Your task to perform on an android device: toggle notifications settings in the gmail app Image 0: 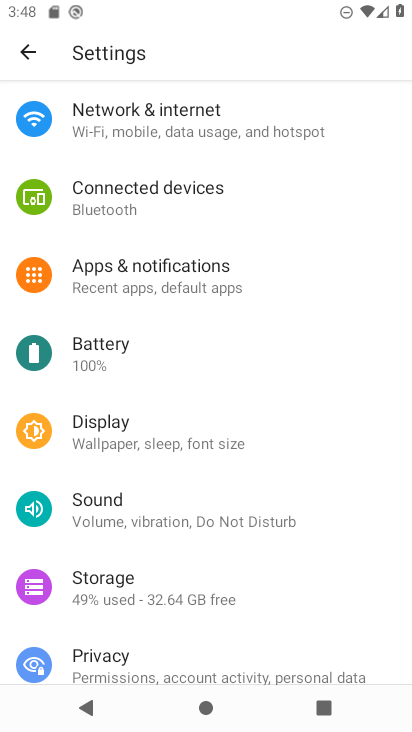
Step 0: press home button
Your task to perform on an android device: toggle notifications settings in the gmail app Image 1: 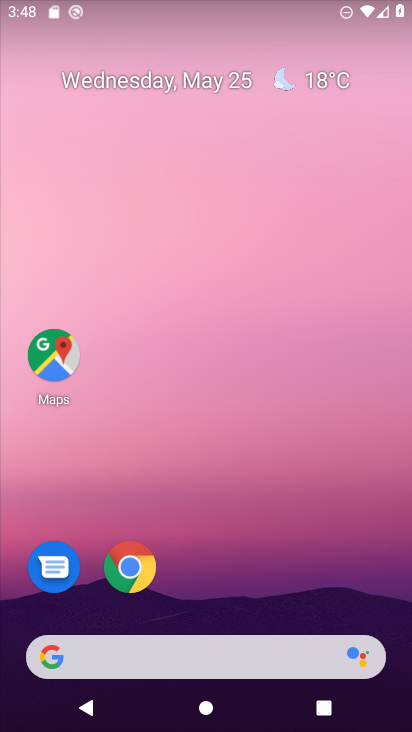
Step 1: drag from (364, 537) to (369, 286)
Your task to perform on an android device: toggle notifications settings in the gmail app Image 2: 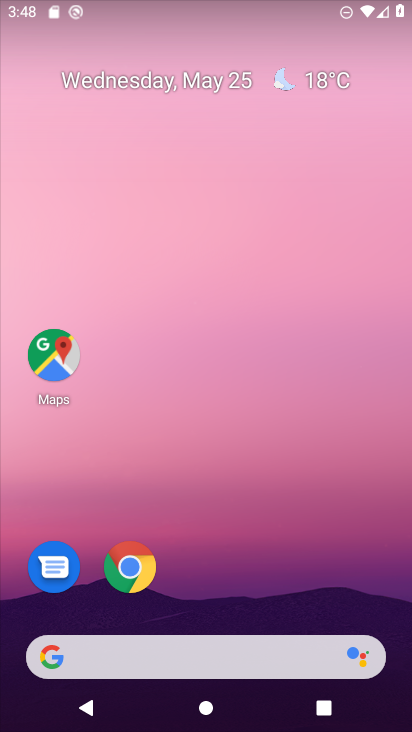
Step 2: drag from (368, 552) to (379, 266)
Your task to perform on an android device: toggle notifications settings in the gmail app Image 3: 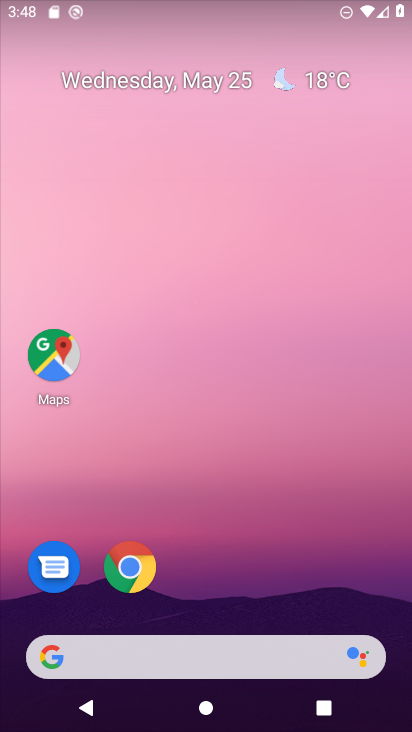
Step 3: drag from (341, 547) to (343, 202)
Your task to perform on an android device: toggle notifications settings in the gmail app Image 4: 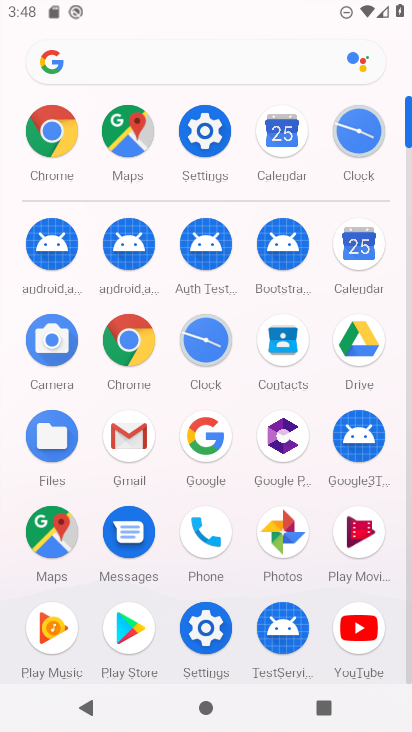
Step 4: click (127, 444)
Your task to perform on an android device: toggle notifications settings in the gmail app Image 5: 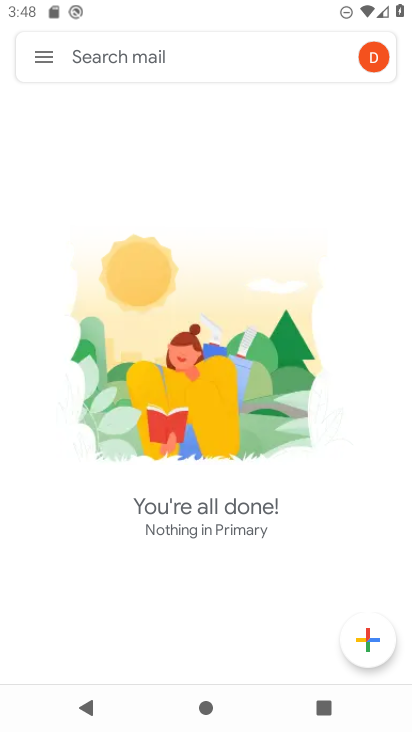
Step 5: click (45, 63)
Your task to perform on an android device: toggle notifications settings in the gmail app Image 6: 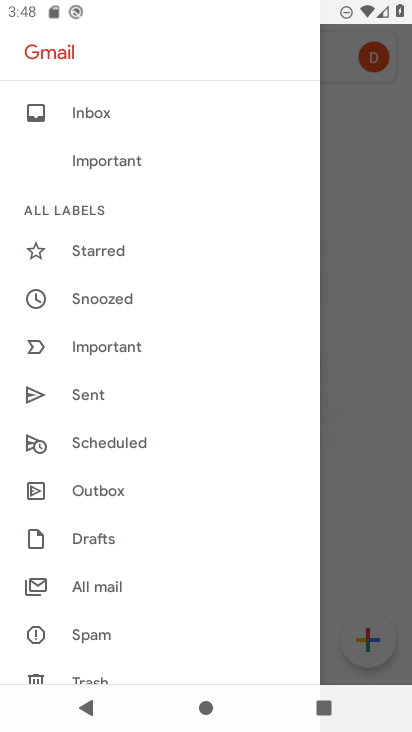
Step 6: drag from (204, 454) to (220, 322)
Your task to perform on an android device: toggle notifications settings in the gmail app Image 7: 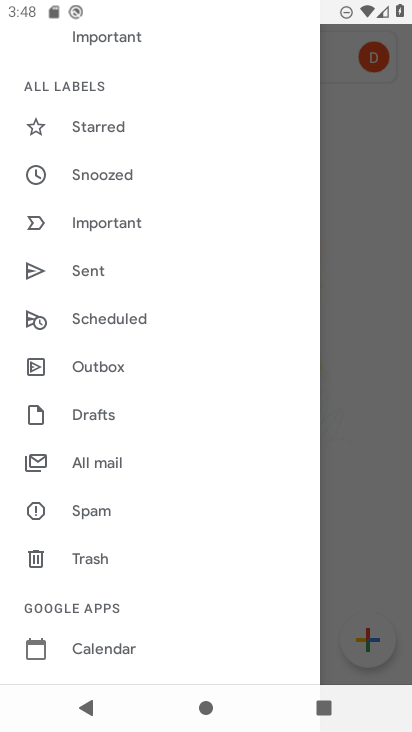
Step 7: drag from (216, 478) to (233, 374)
Your task to perform on an android device: toggle notifications settings in the gmail app Image 8: 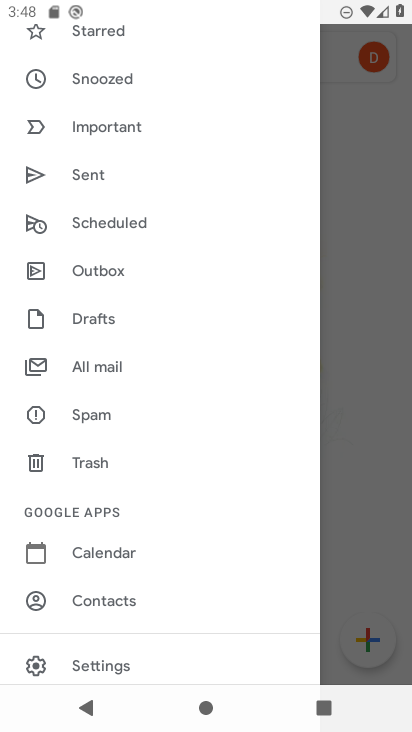
Step 8: drag from (264, 540) to (282, 439)
Your task to perform on an android device: toggle notifications settings in the gmail app Image 9: 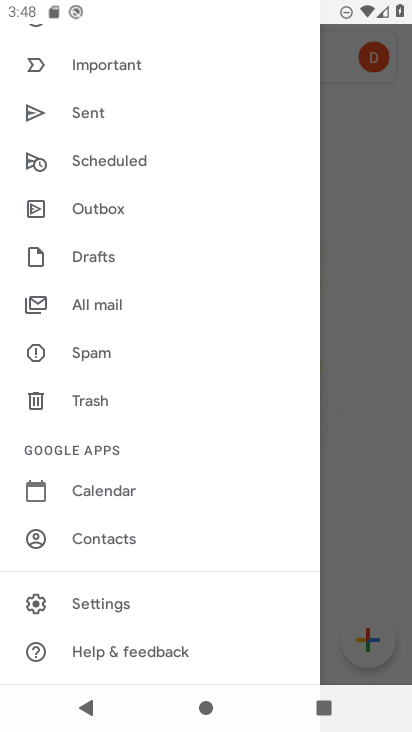
Step 9: click (147, 609)
Your task to perform on an android device: toggle notifications settings in the gmail app Image 10: 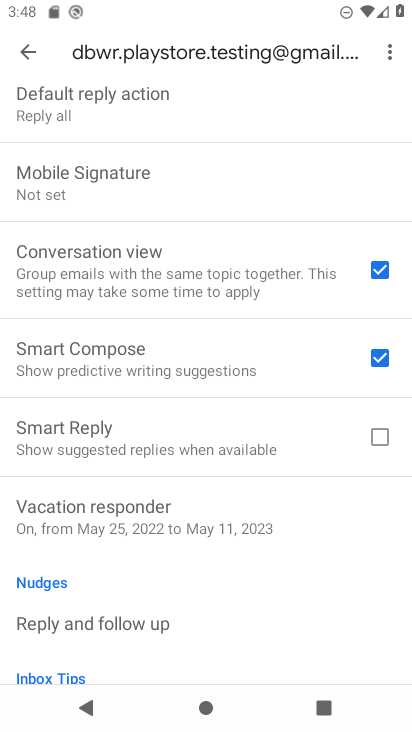
Step 10: drag from (236, 346) to (247, 415)
Your task to perform on an android device: toggle notifications settings in the gmail app Image 11: 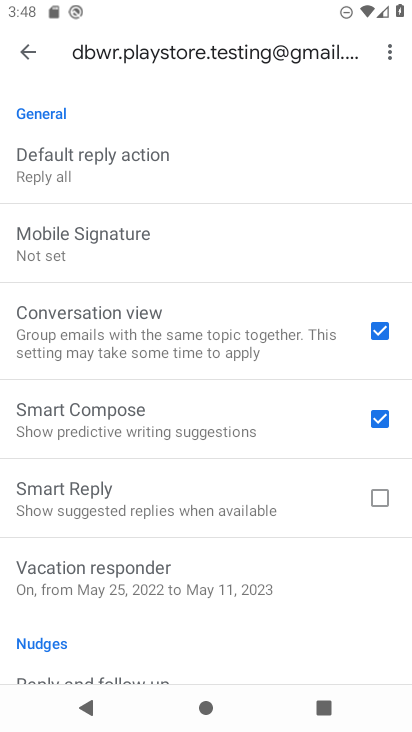
Step 11: drag from (281, 269) to (291, 349)
Your task to perform on an android device: toggle notifications settings in the gmail app Image 12: 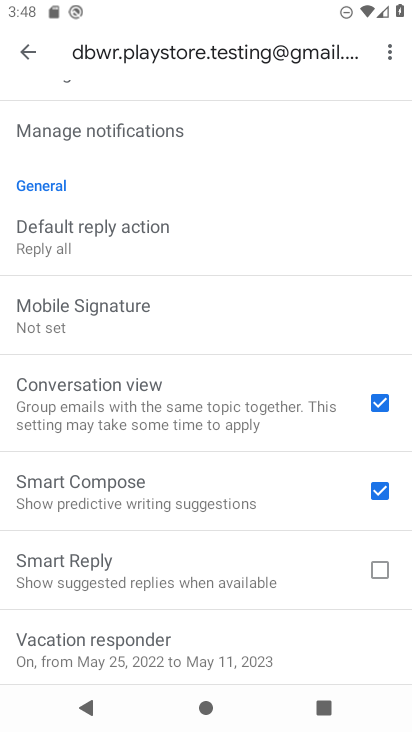
Step 12: drag from (263, 228) to (264, 337)
Your task to perform on an android device: toggle notifications settings in the gmail app Image 13: 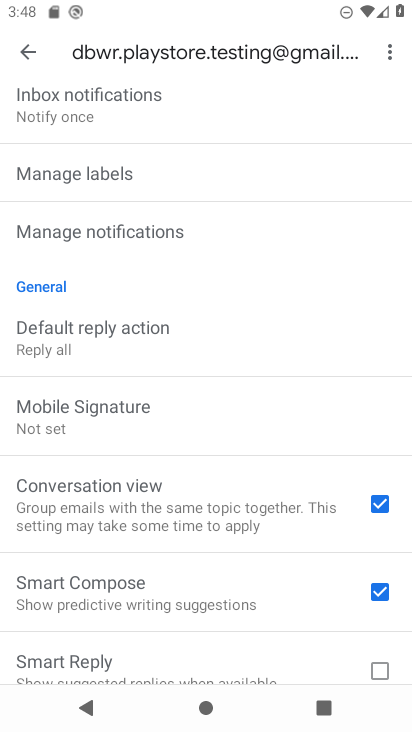
Step 13: drag from (262, 208) to (266, 319)
Your task to perform on an android device: toggle notifications settings in the gmail app Image 14: 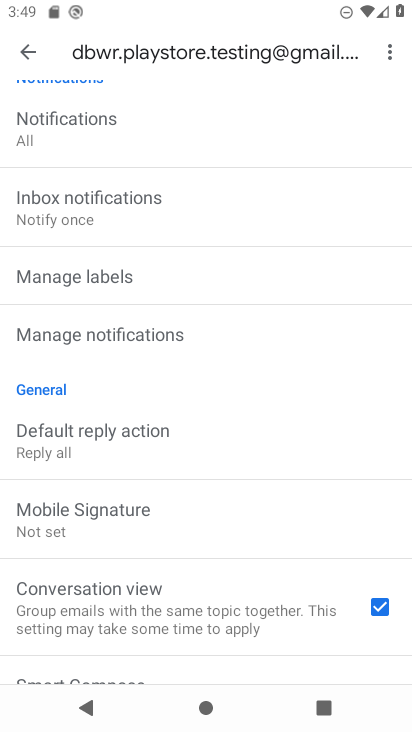
Step 14: drag from (262, 202) to (254, 310)
Your task to perform on an android device: toggle notifications settings in the gmail app Image 15: 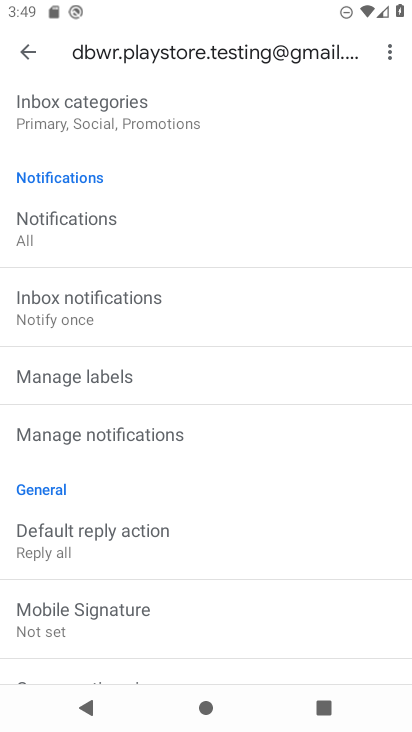
Step 15: click (217, 430)
Your task to perform on an android device: toggle notifications settings in the gmail app Image 16: 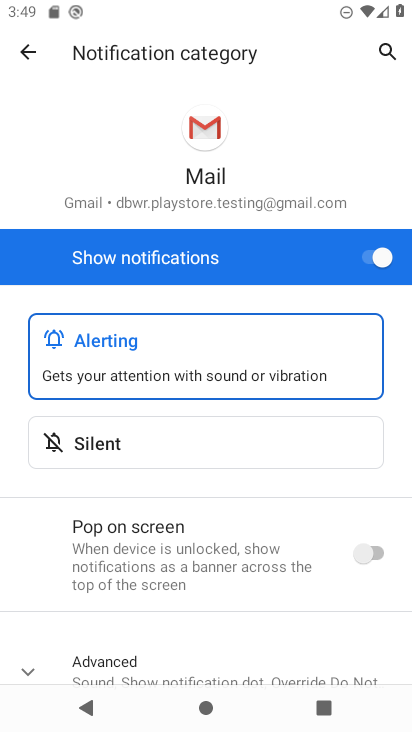
Step 16: click (382, 268)
Your task to perform on an android device: toggle notifications settings in the gmail app Image 17: 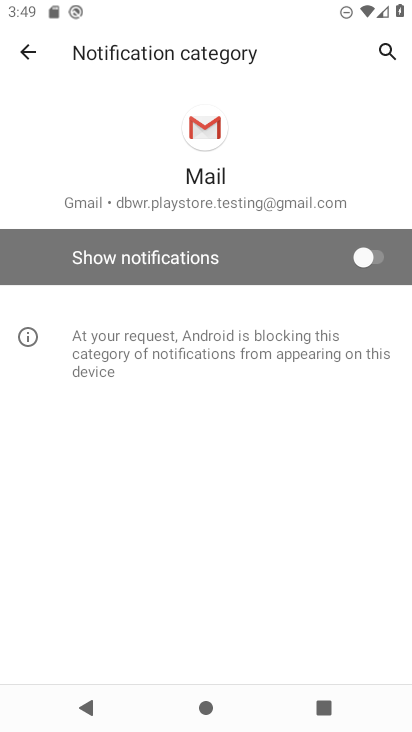
Step 17: task complete